Your task to perform on an android device: Do I have any events today? Image 0: 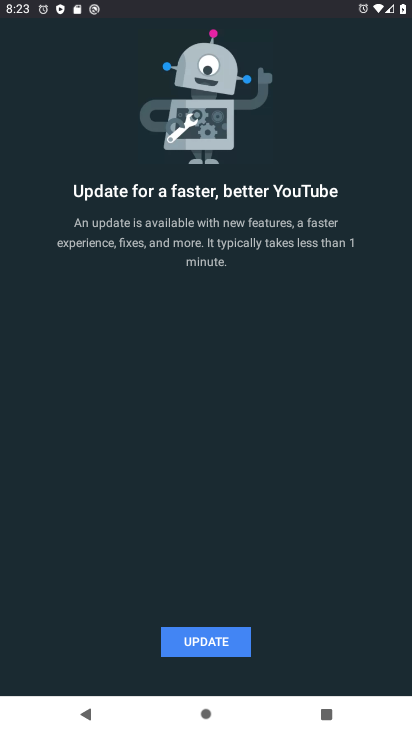
Step 0: press home button
Your task to perform on an android device: Do I have any events today? Image 1: 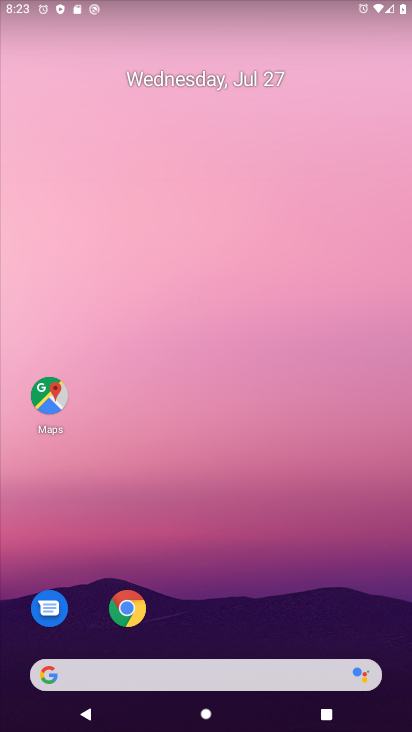
Step 1: drag from (250, 563) to (267, 79)
Your task to perform on an android device: Do I have any events today? Image 2: 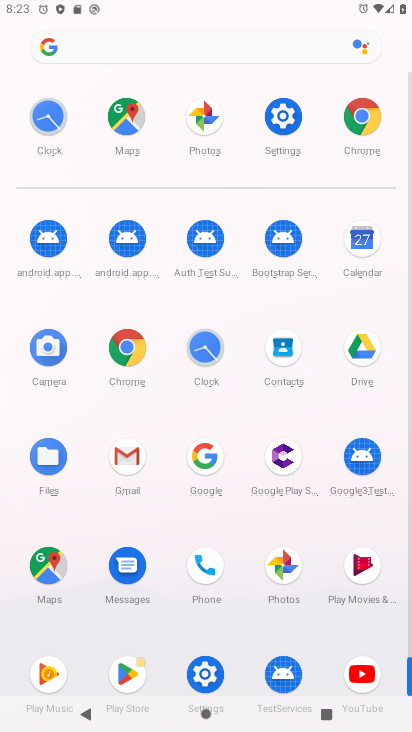
Step 2: click (360, 249)
Your task to perform on an android device: Do I have any events today? Image 3: 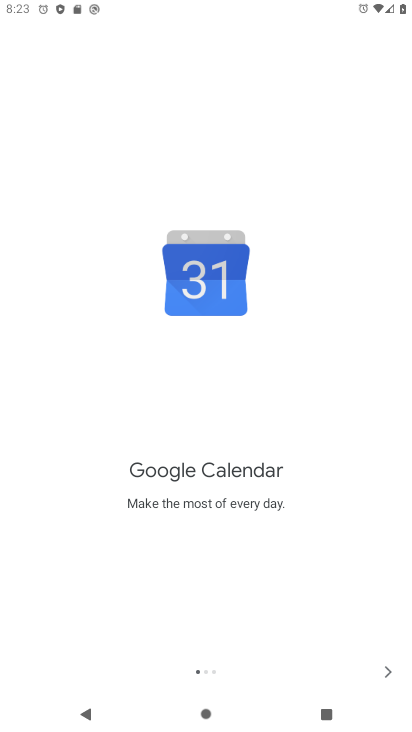
Step 3: click (393, 666)
Your task to perform on an android device: Do I have any events today? Image 4: 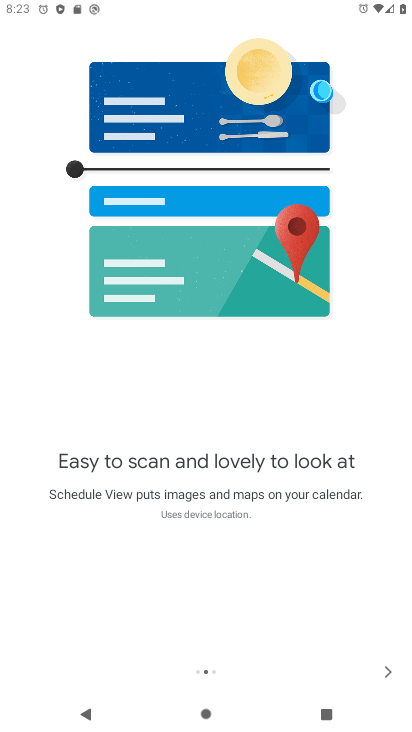
Step 4: click (393, 666)
Your task to perform on an android device: Do I have any events today? Image 5: 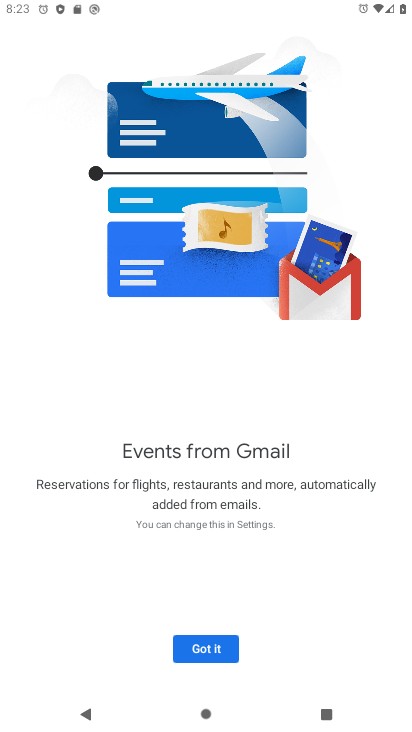
Step 5: click (393, 666)
Your task to perform on an android device: Do I have any events today? Image 6: 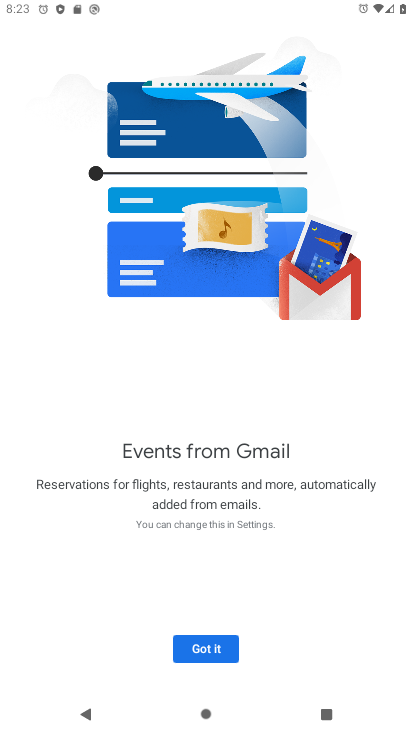
Step 6: click (189, 651)
Your task to perform on an android device: Do I have any events today? Image 7: 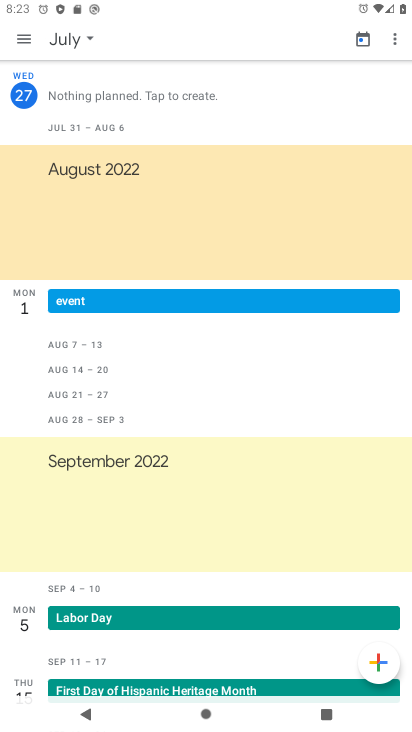
Step 7: task complete